Your task to perform on an android device: Open Android settings Image 0: 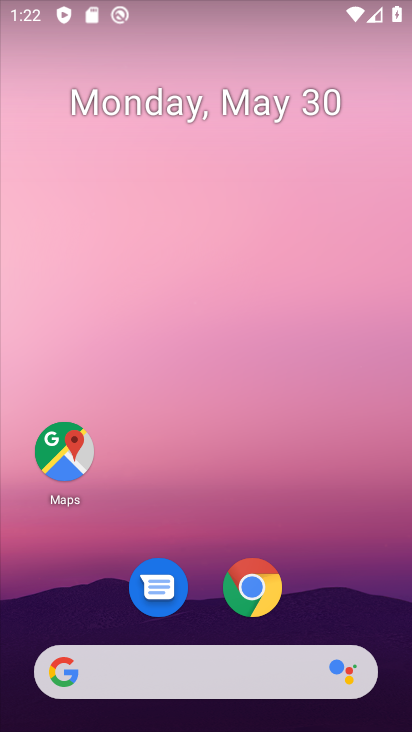
Step 0: drag from (151, 686) to (174, 71)
Your task to perform on an android device: Open Android settings Image 1: 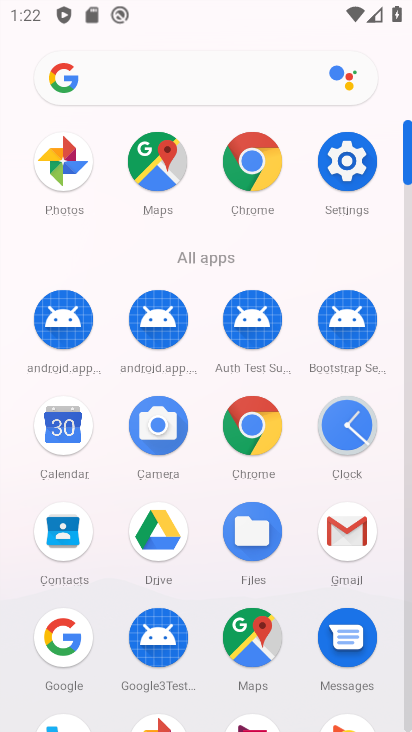
Step 1: click (340, 162)
Your task to perform on an android device: Open Android settings Image 2: 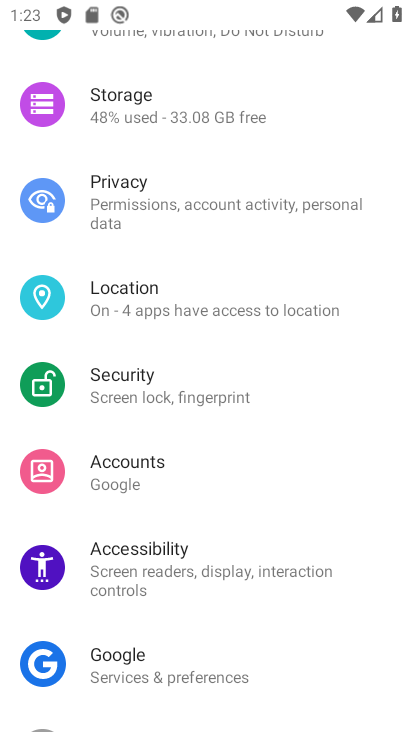
Step 2: task complete